Your task to perform on an android device: toggle notification dots Image 0: 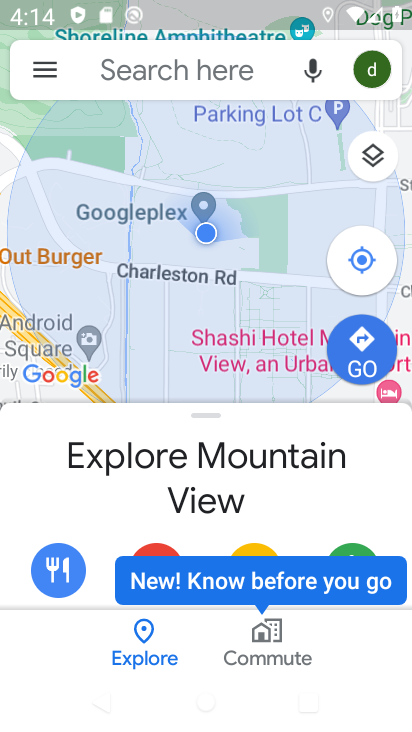
Step 0: press home button
Your task to perform on an android device: toggle notification dots Image 1: 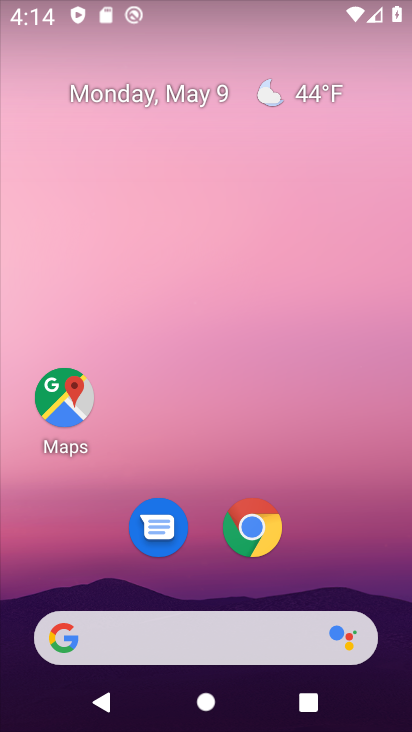
Step 1: drag from (196, 588) to (209, 128)
Your task to perform on an android device: toggle notification dots Image 2: 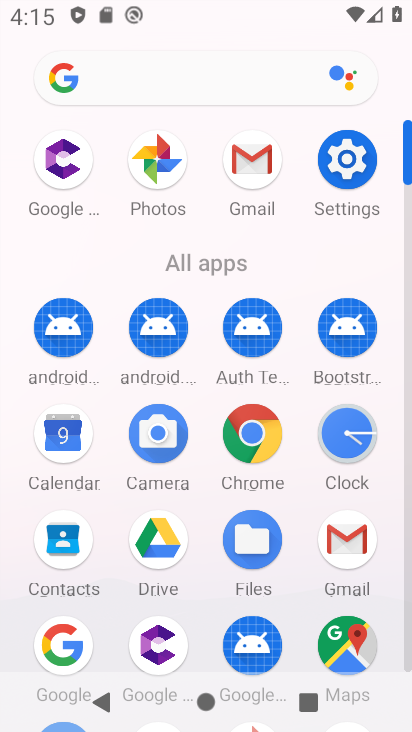
Step 2: click (357, 179)
Your task to perform on an android device: toggle notification dots Image 3: 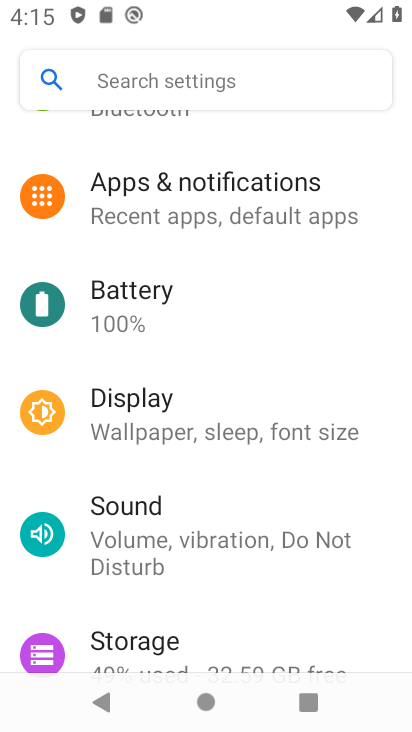
Step 3: click (131, 207)
Your task to perform on an android device: toggle notification dots Image 4: 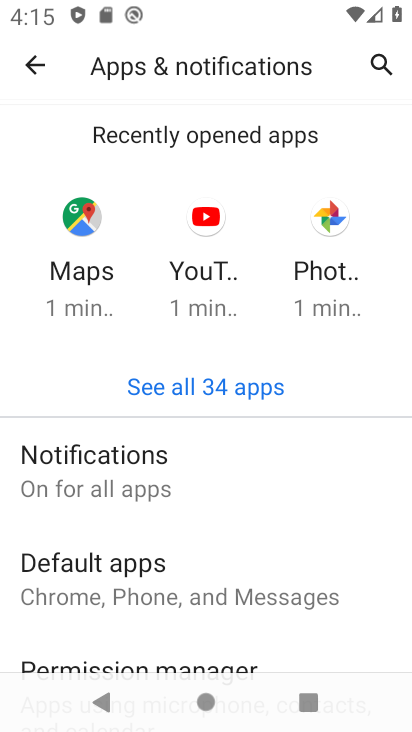
Step 4: drag from (200, 630) to (245, 227)
Your task to perform on an android device: toggle notification dots Image 5: 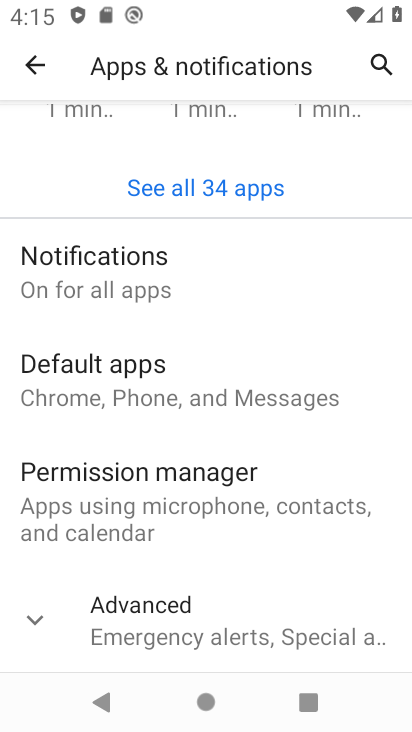
Step 5: click (266, 626)
Your task to perform on an android device: toggle notification dots Image 6: 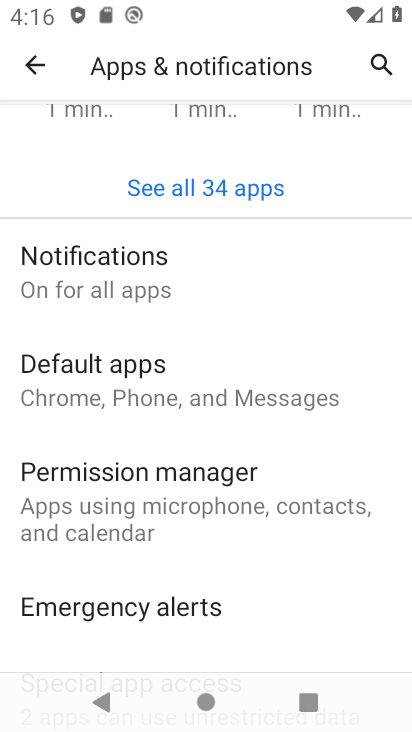
Step 6: drag from (206, 573) to (257, 225)
Your task to perform on an android device: toggle notification dots Image 7: 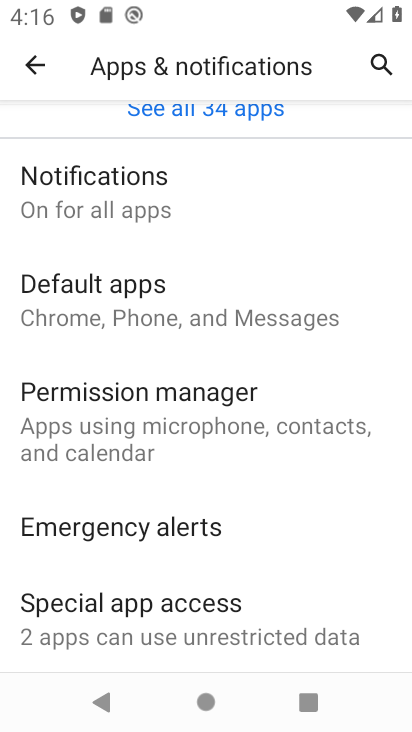
Step 7: drag from (213, 609) to (213, 130)
Your task to perform on an android device: toggle notification dots Image 8: 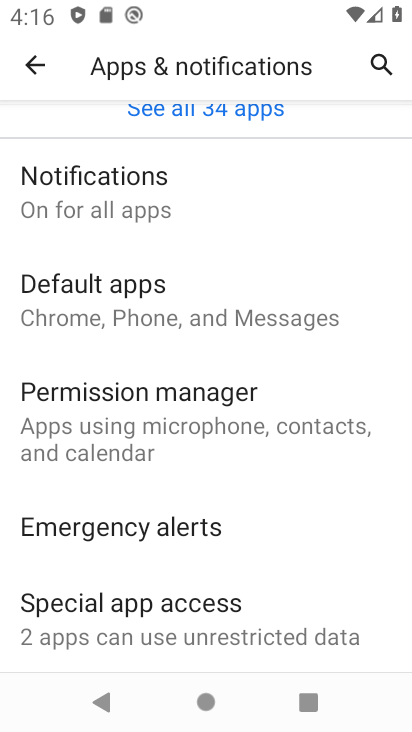
Step 8: drag from (180, 186) to (263, 589)
Your task to perform on an android device: toggle notification dots Image 9: 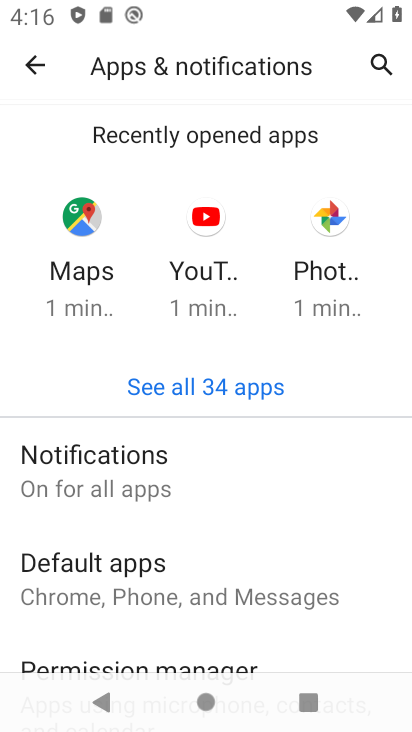
Step 9: drag from (194, 601) to (201, 322)
Your task to perform on an android device: toggle notification dots Image 10: 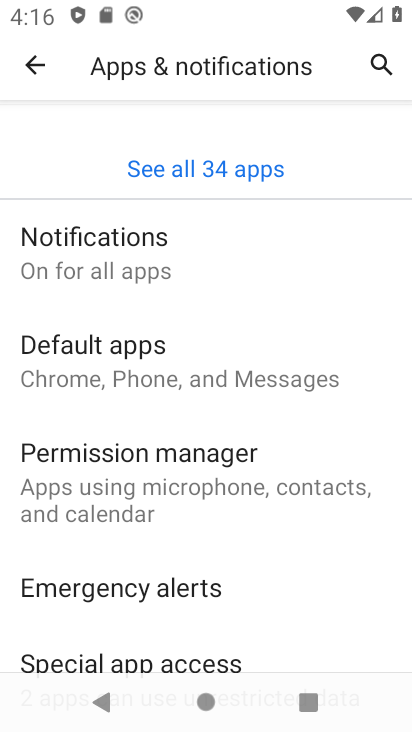
Step 10: click (117, 271)
Your task to perform on an android device: toggle notification dots Image 11: 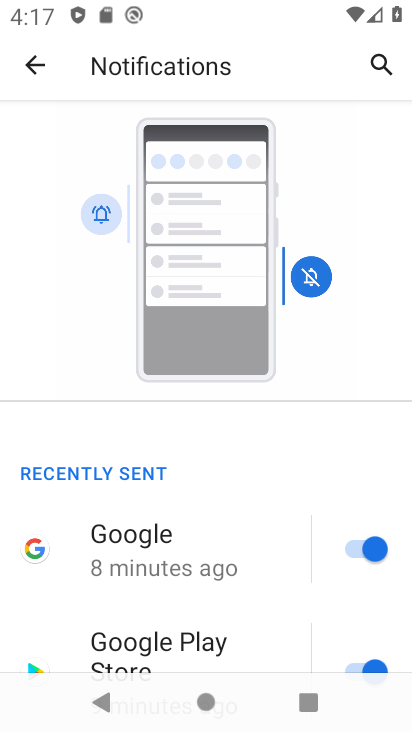
Step 11: drag from (256, 620) to (327, 42)
Your task to perform on an android device: toggle notification dots Image 12: 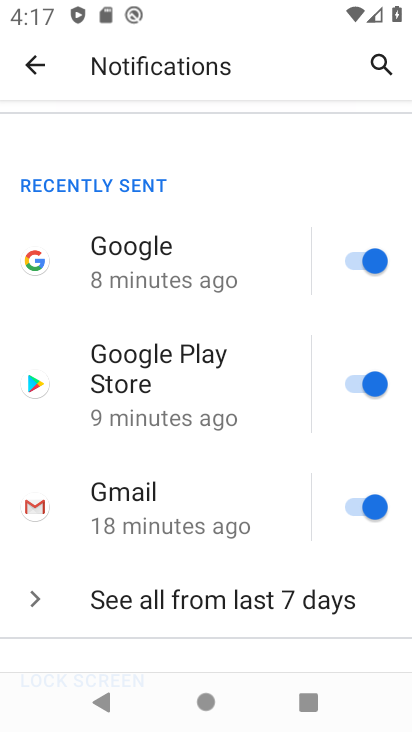
Step 12: drag from (185, 555) to (274, 59)
Your task to perform on an android device: toggle notification dots Image 13: 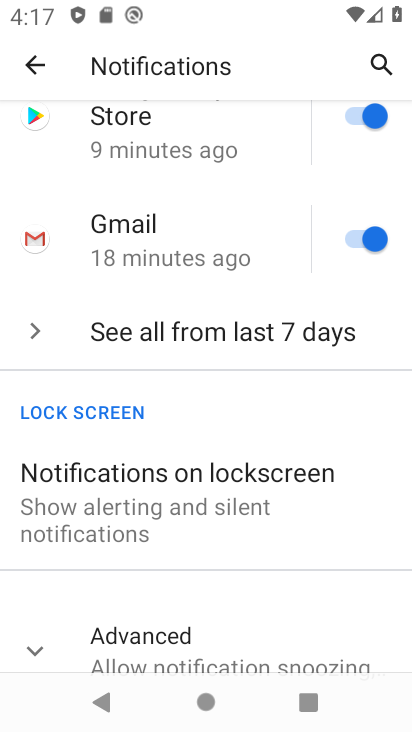
Step 13: click (222, 658)
Your task to perform on an android device: toggle notification dots Image 14: 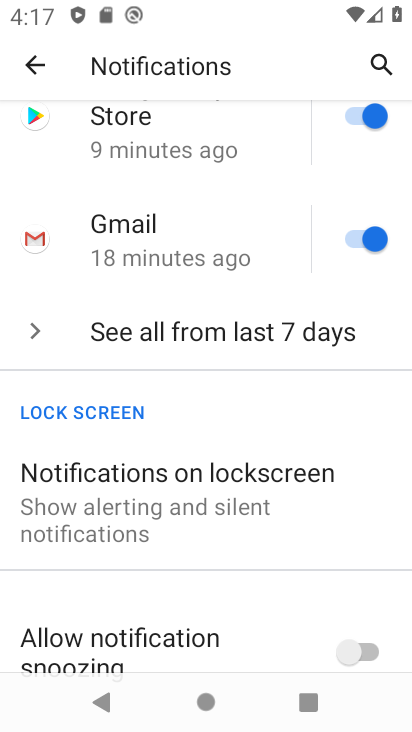
Step 14: drag from (179, 607) to (256, 9)
Your task to perform on an android device: toggle notification dots Image 15: 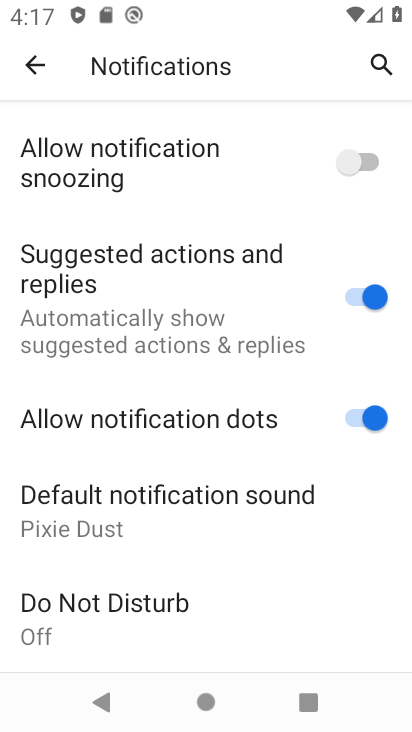
Step 15: click (361, 411)
Your task to perform on an android device: toggle notification dots Image 16: 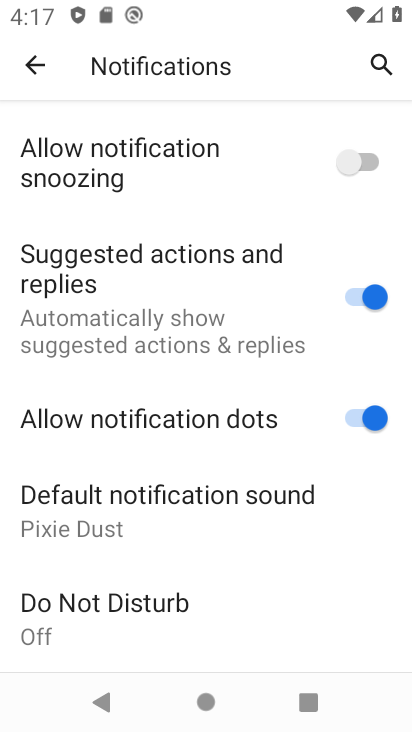
Step 16: click (361, 411)
Your task to perform on an android device: toggle notification dots Image 17: 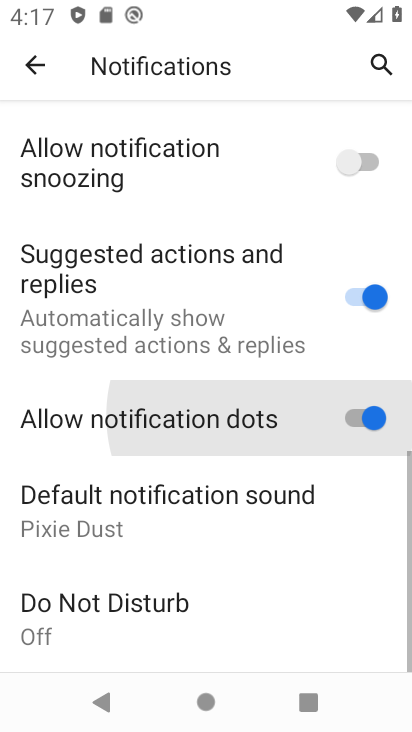
Step 17: click (361, 411)
Your task to perform on an android device: toggle notification dots Image 18: 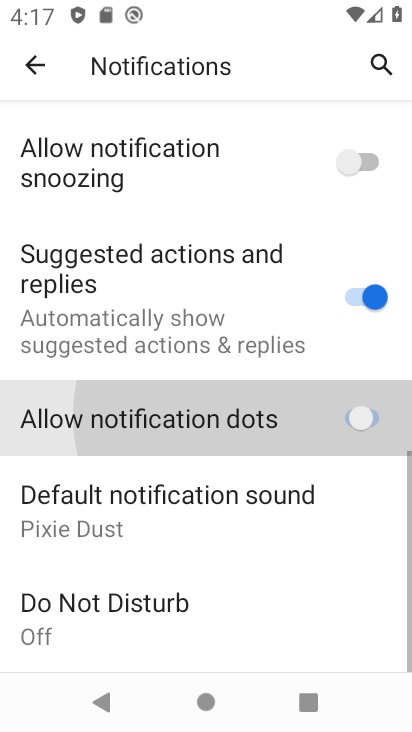
Step 18: click (361, 411)
Your task to perform on an android device: toggle notification dots Image 19: 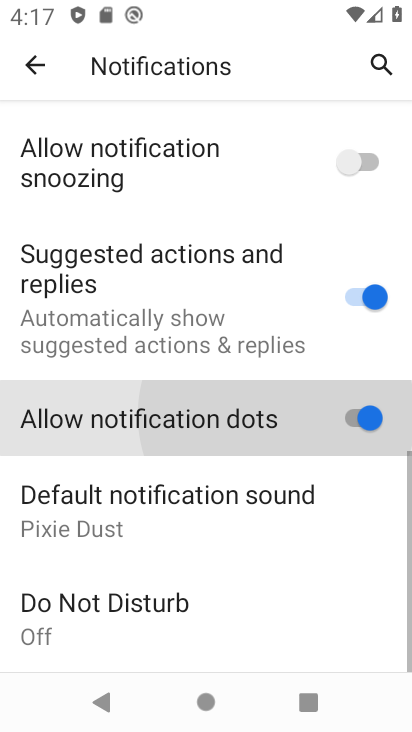
Step 19: click (361, 411)
Your task to perform on an android device: toggle notification dots Image 20: 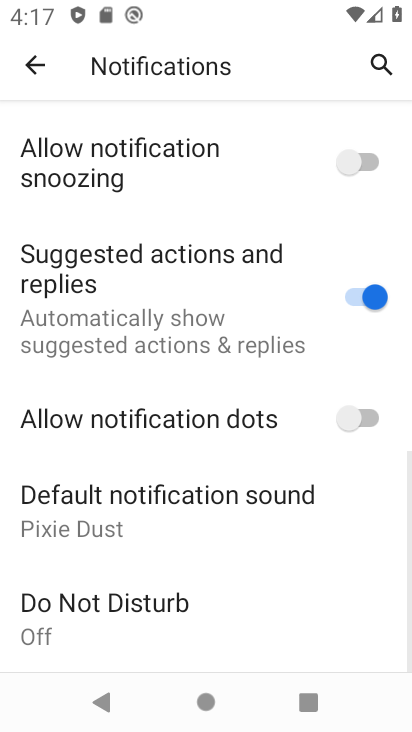
Step 20: task complete